Your task to perform on an android device: Open calendar and show me the second week of next month Image 0: 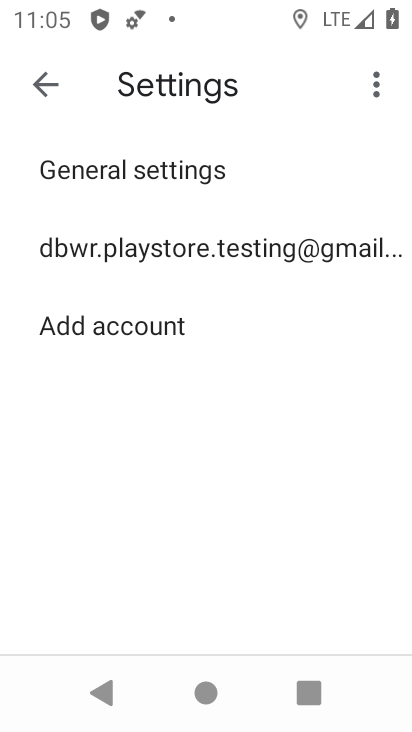
Step 0: press back button
Your task to perform on an android device: Open calendar and show me the second week of next month Image 1: 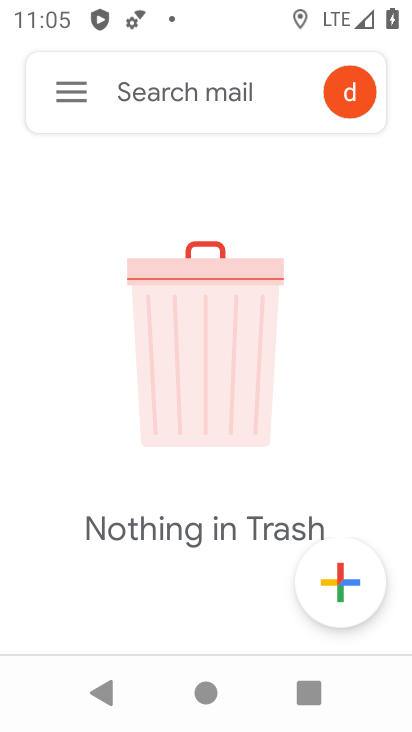
Step 1: press home button
Your task to perform on an android device: Open calendar and show me the second week of next month Image 2: 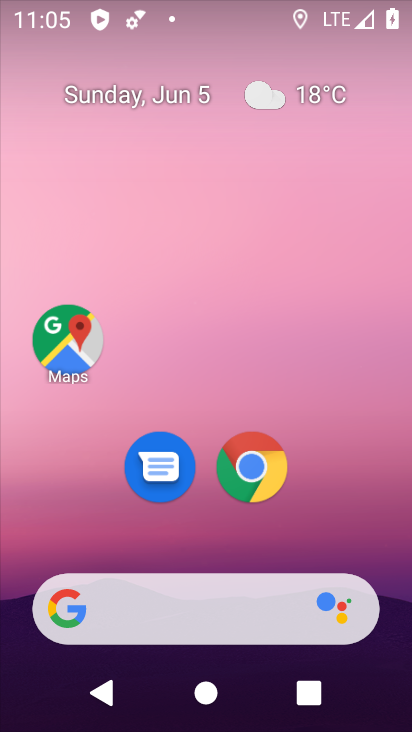
Step 2: drag from (205, 553) to (336, 23)
Your task to perform on an android device: Open calendar and show me the second week of next month Image 3: 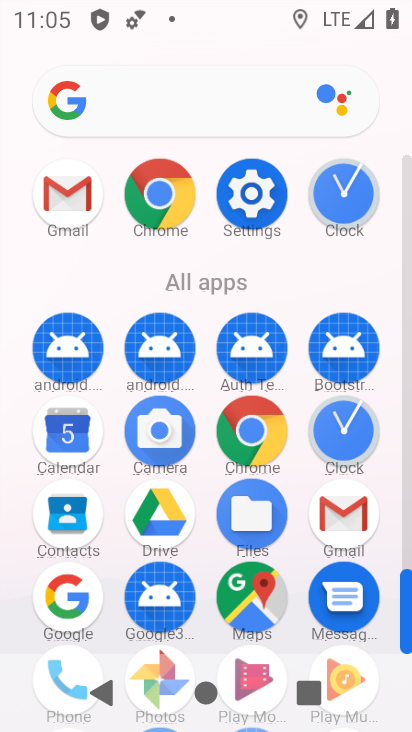
Step 3: click (65, 454)
Your task to perform on an android device: Open calendar and show me the second week of next month Image 4: 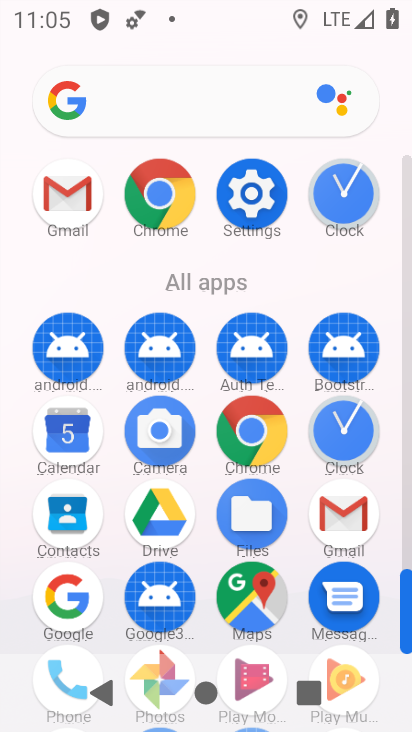
Step 4: click (65, 454)
Your task to perform on an android device: Open calendar and show me the second week of next month Image 5: 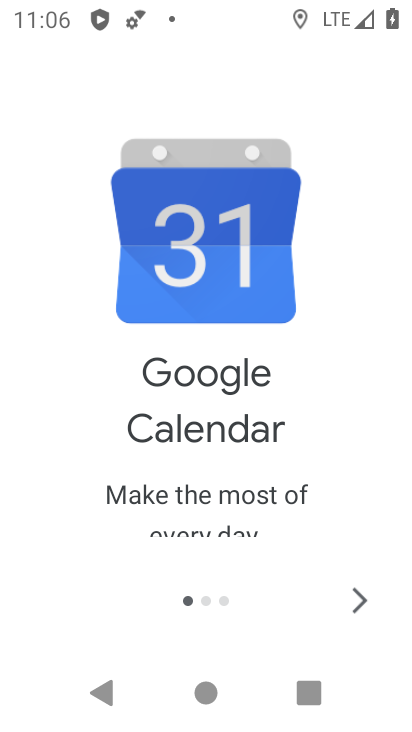
Step 5: click (356, 597)
Your task to perform on an android device: Open calendar and show me the second week of next month Image 6: 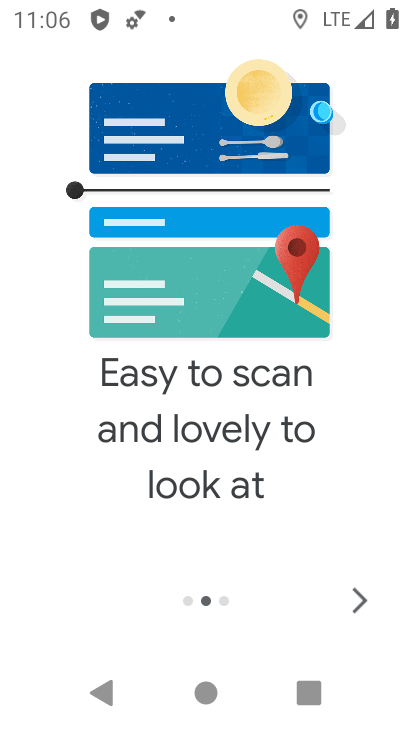
Step 6: click (356, 597)
Your task to perform on an android device: Open calendar and show me the second week of next month Image 7: 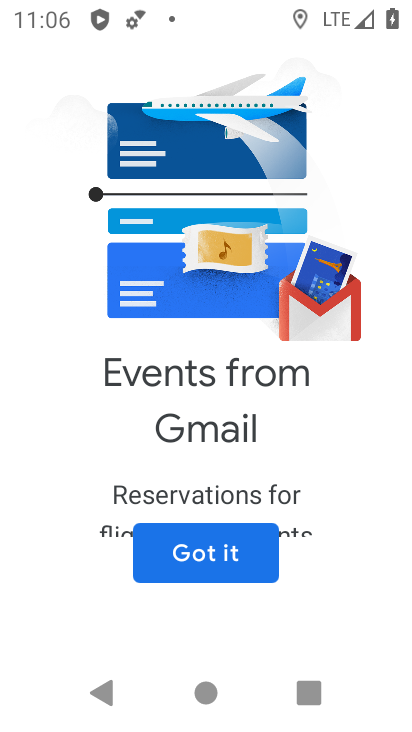
Step 7: click (215, 532)
Your task to perform on an android device: Open calendar and show me the second week of next month Image 8: 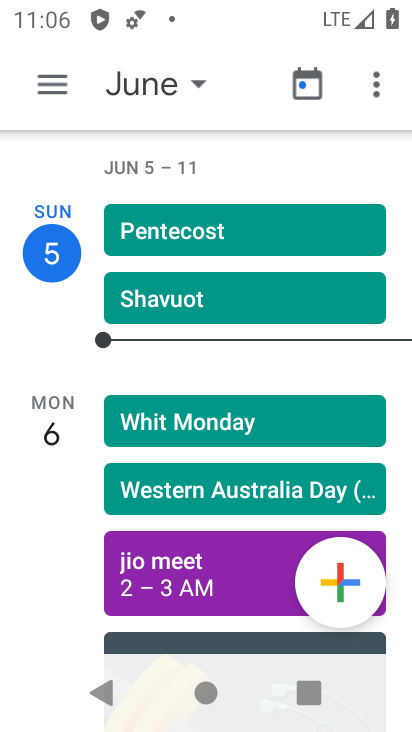
Step 8: click (60, 79)
Your task to perform on an android device: Open calendar and show me the second week of next month Image 9: 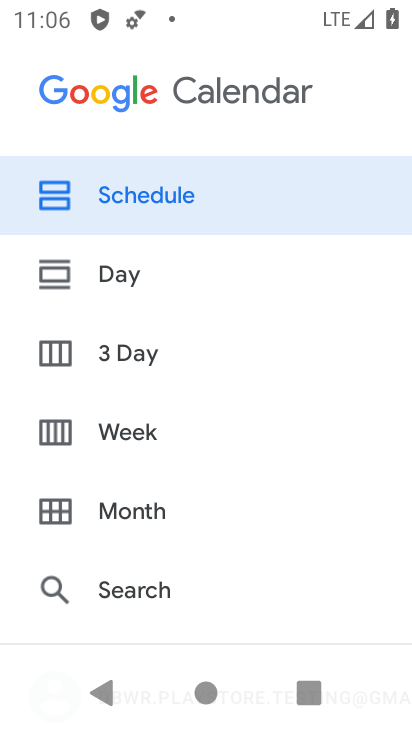
Step 9: click (174, 432)
Your task to perform on an android device: Open calendar and show me the second week of next month Image 10: 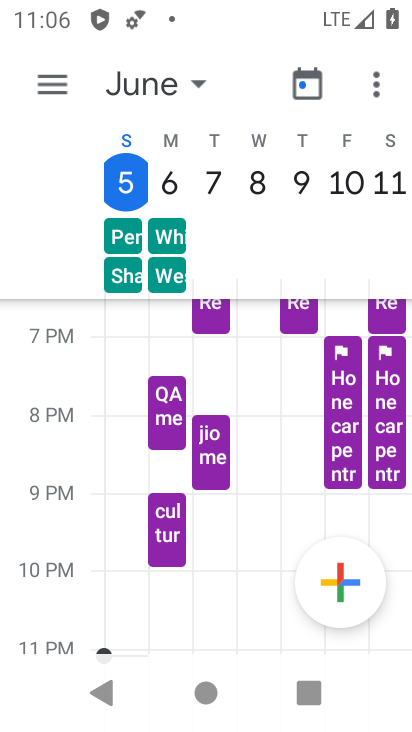
Step 10: task complete